Your task to perform on an android device: Add "bose soundlink" to the cart on bestbuy.com Image 0: 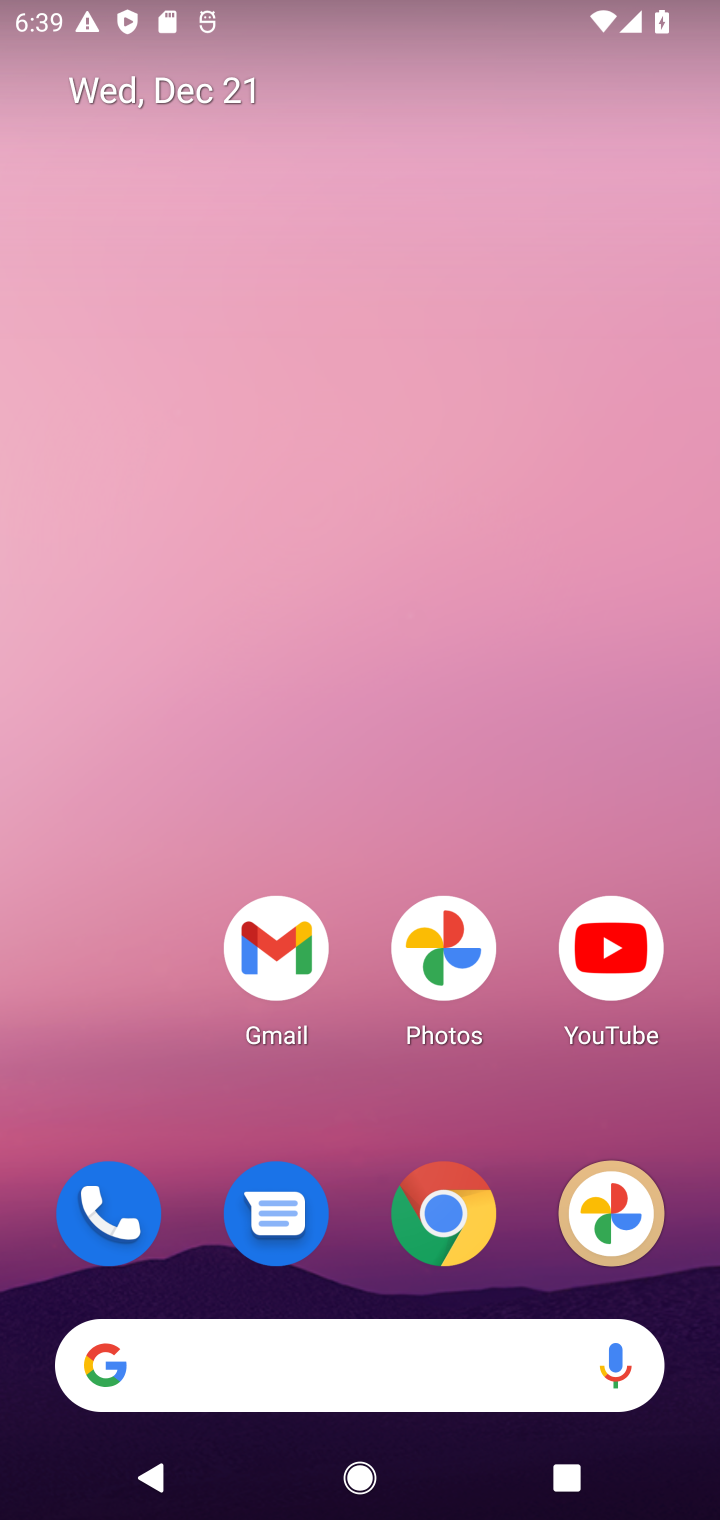
Step 0: press home button
Your task to perform on an android device: Add "bose soundlink" to the cart on bestbuy.com Image 1: 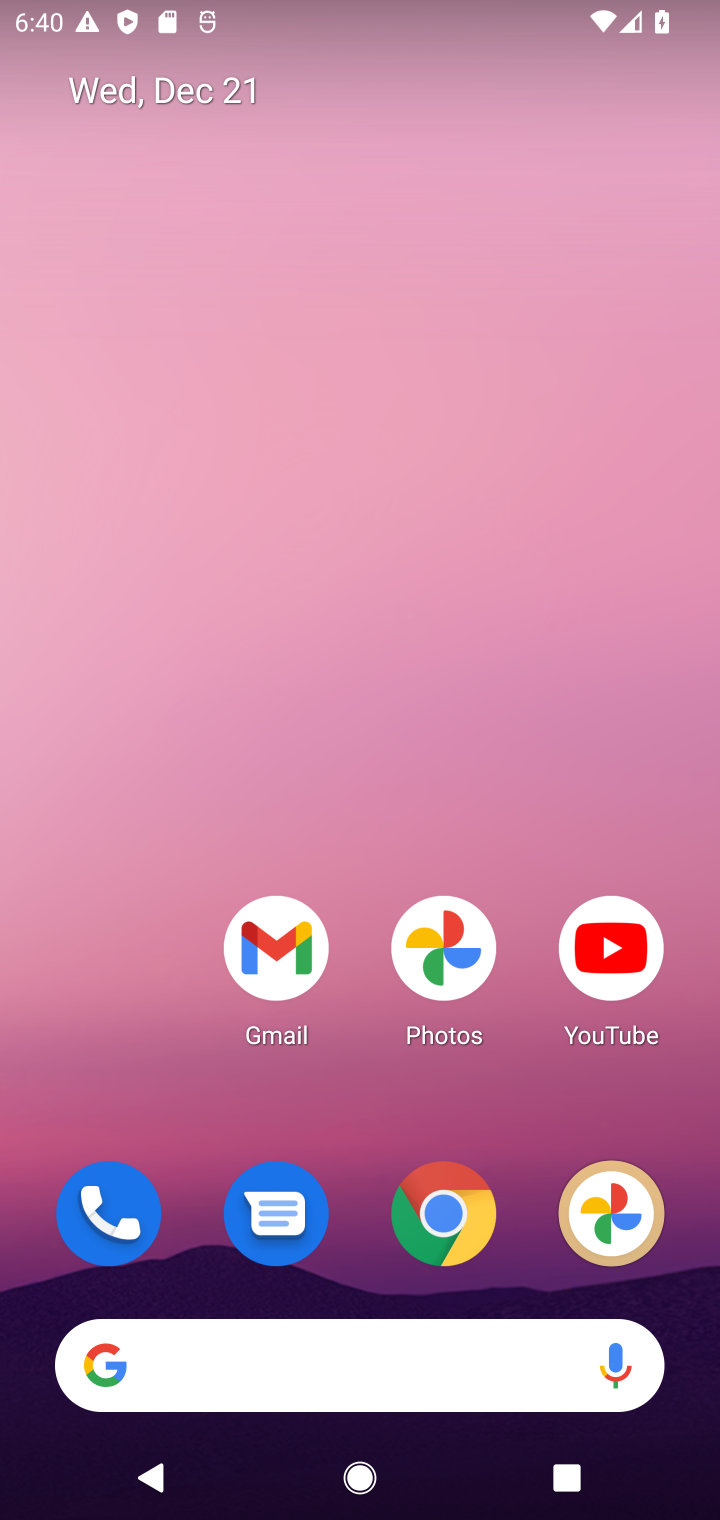
Step 1: click (631, 988)
Your task to perform on an android device: Add "bose soundlink" to the cart on bestbuy.com Image 2: 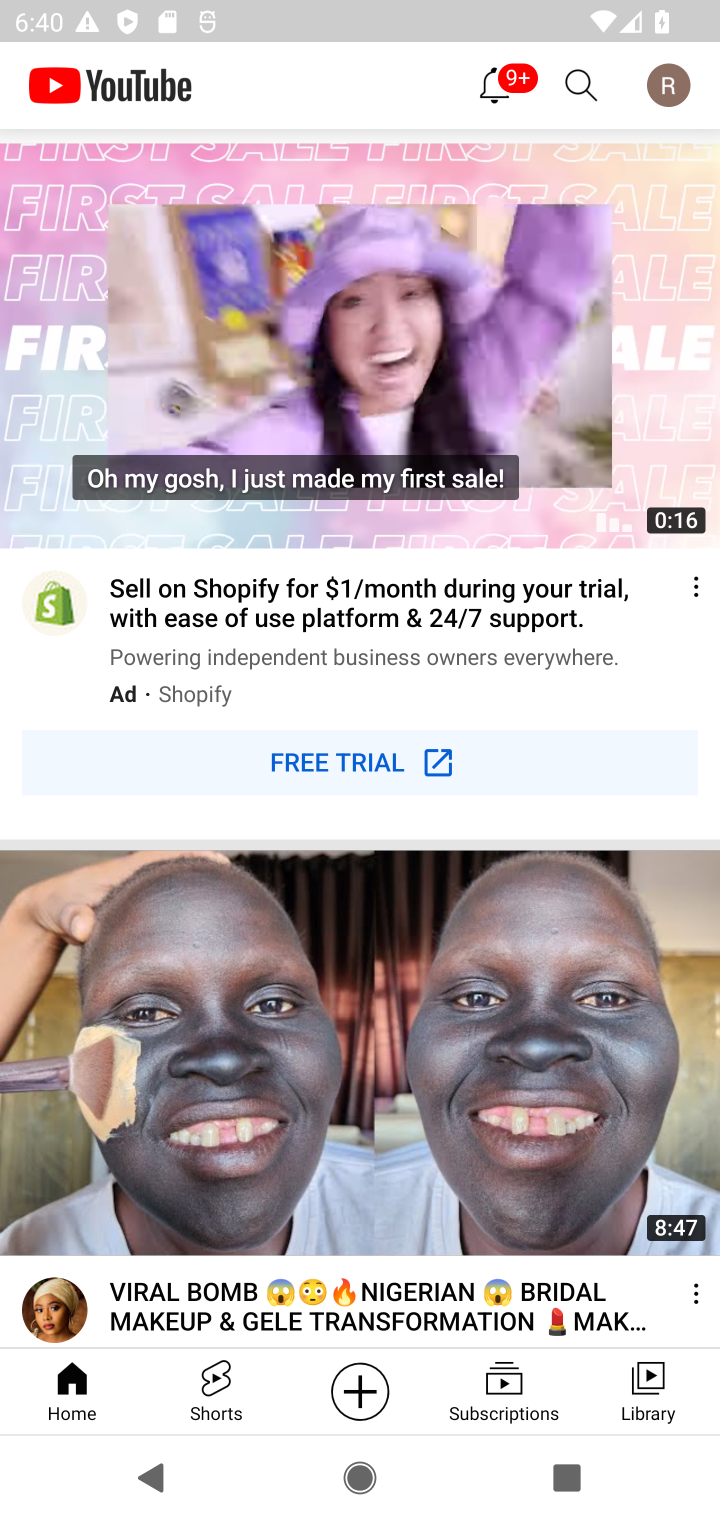
Step 2: press home button
Your task to perform on an android device: Add "bose soundlink" to the cart on bestbuy.com Image 3: 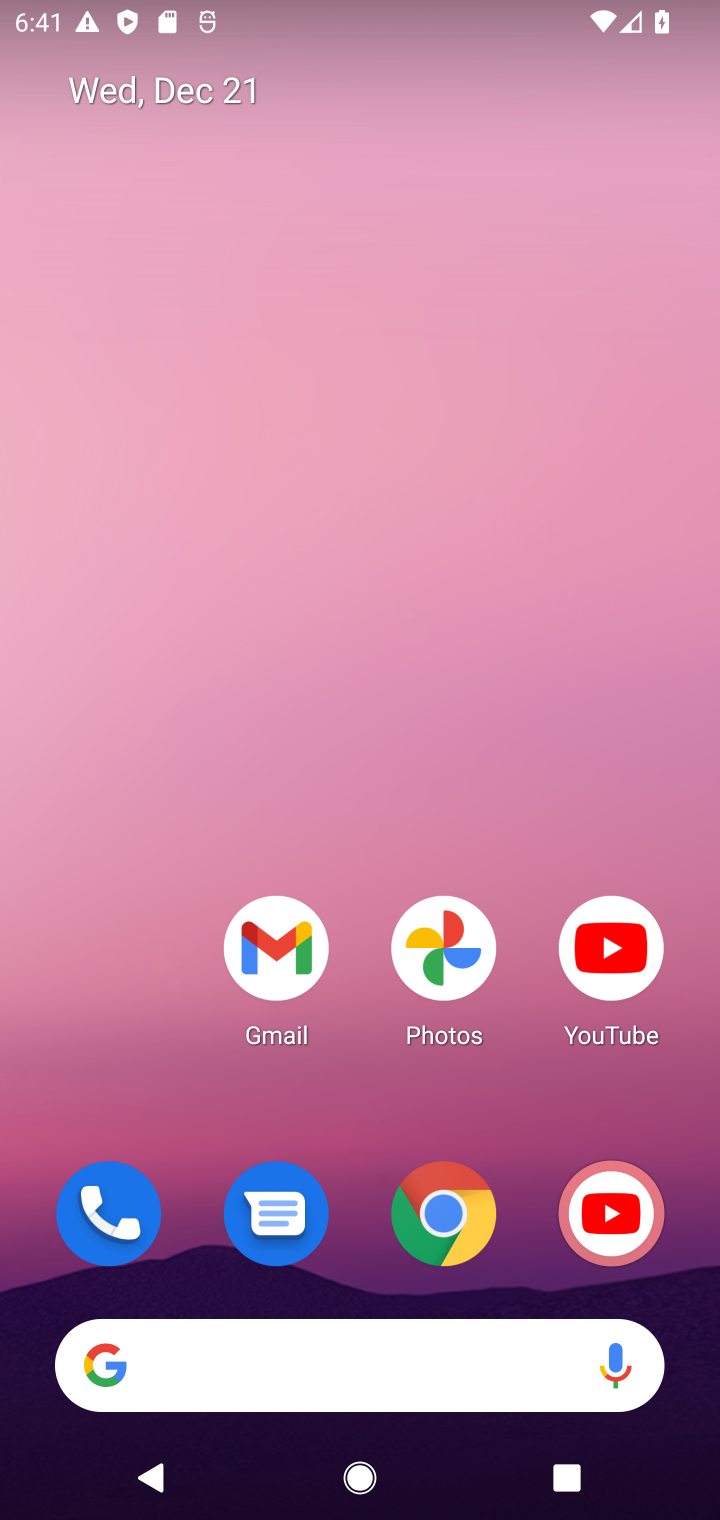
Step 3: click (430, 1217)
Your task to perform on an android device: Add "bose soundlink" to the cart on bestbuy.com Image 4: 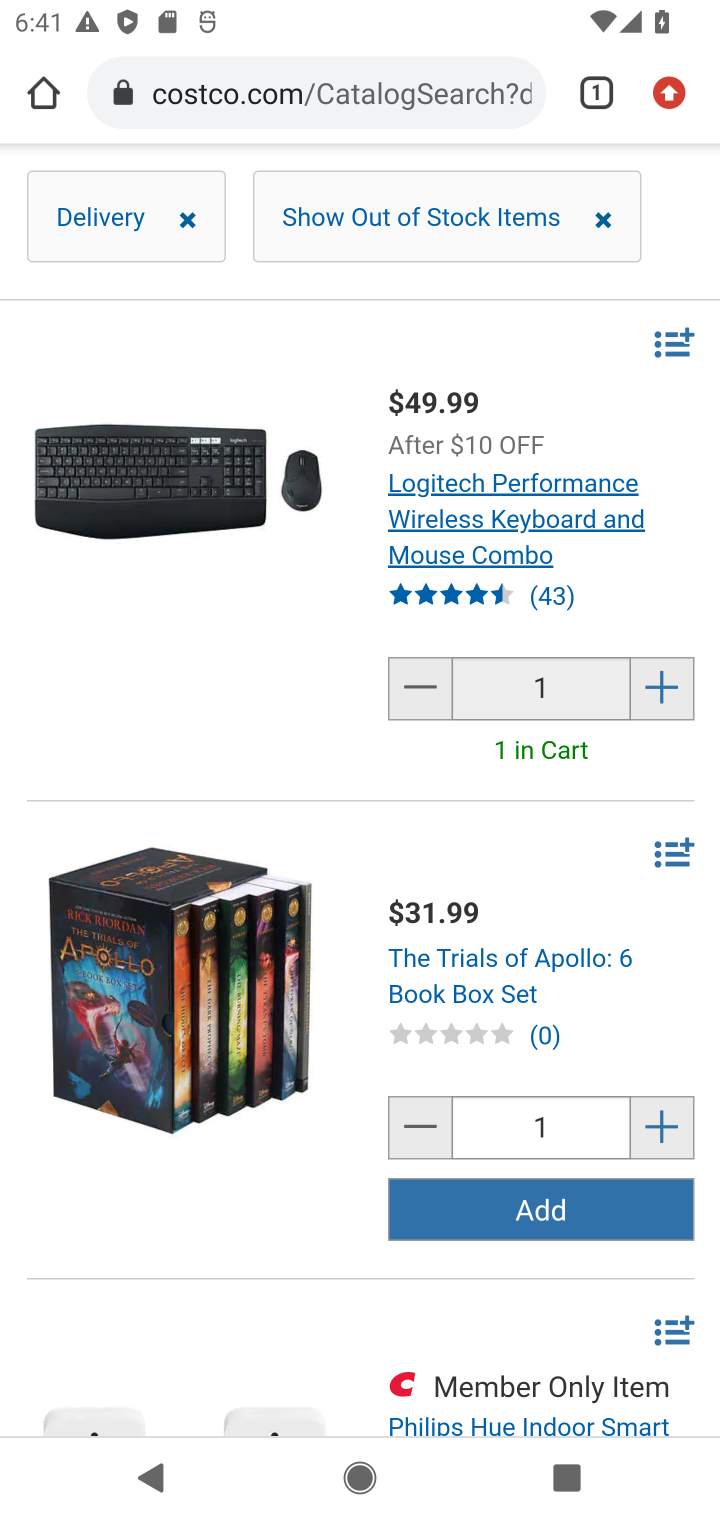
Step 4: click (311, 99)
Your task to perform on an android device: Add "bose soundlink" to the cart on bestbuy.com Image 5: 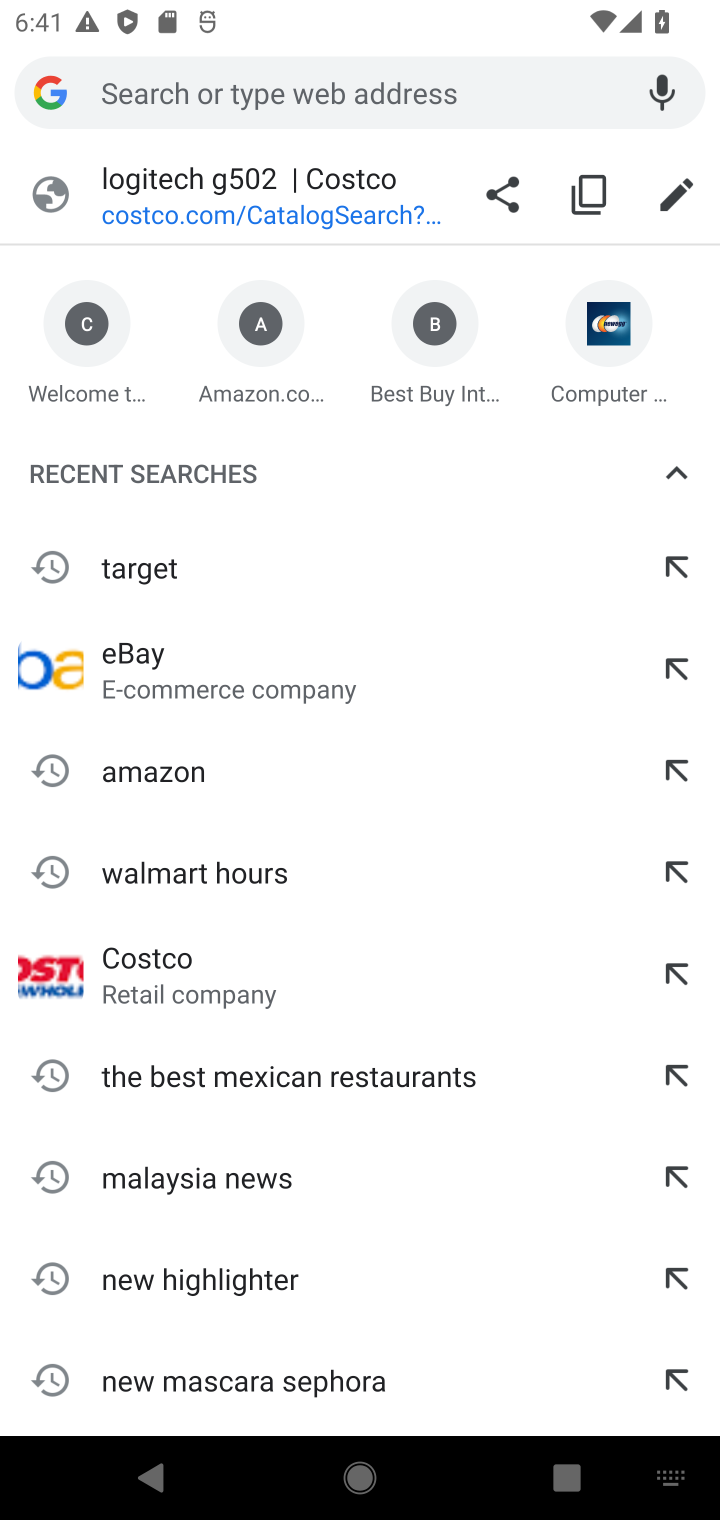
Step 5: type "bestbuy"
Your task to perform on an android device: Add "bose soundlink" to the cart on bestbuy.com Image 6: 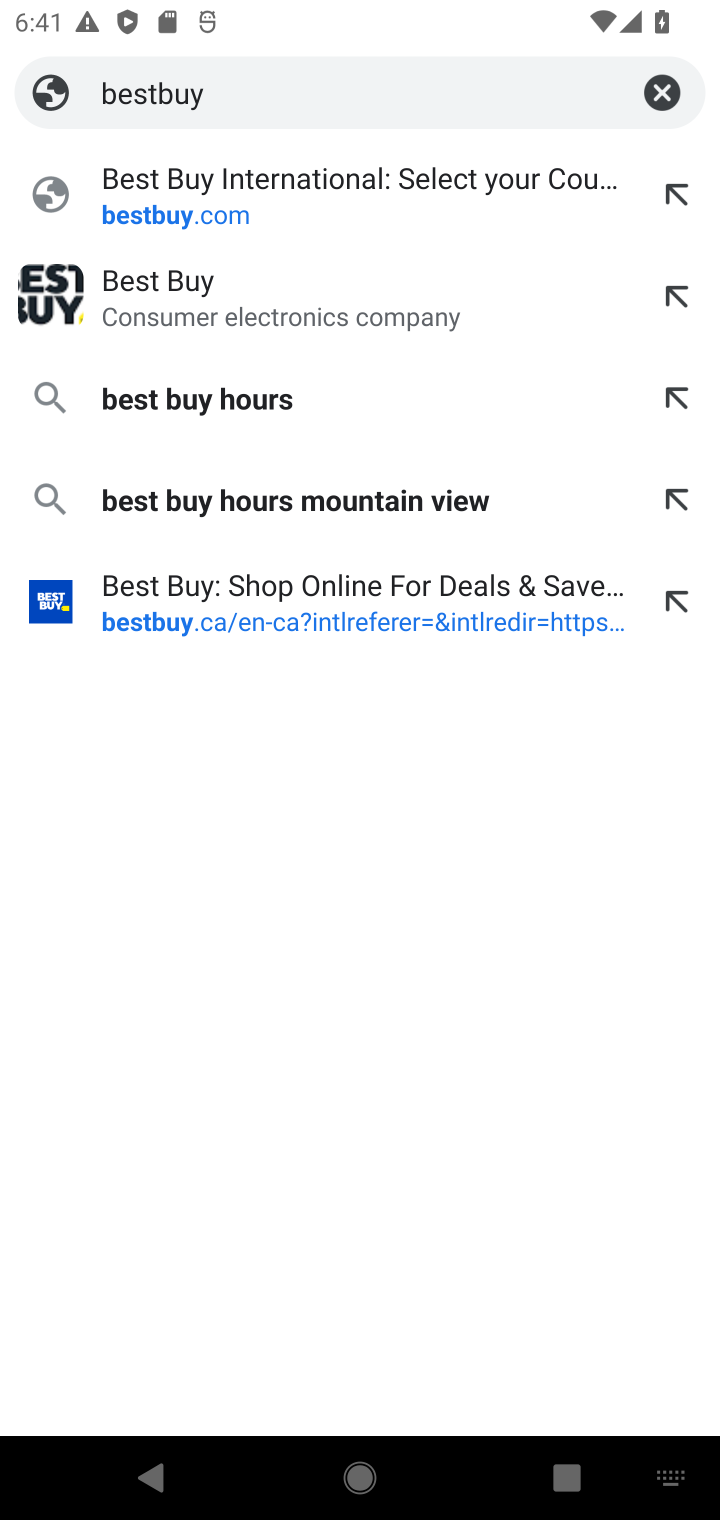
Step 6: click (303, 209)
Your task to perform on an android device: Add "bose soundlink" to the cart on bestbuy.com Image 7: 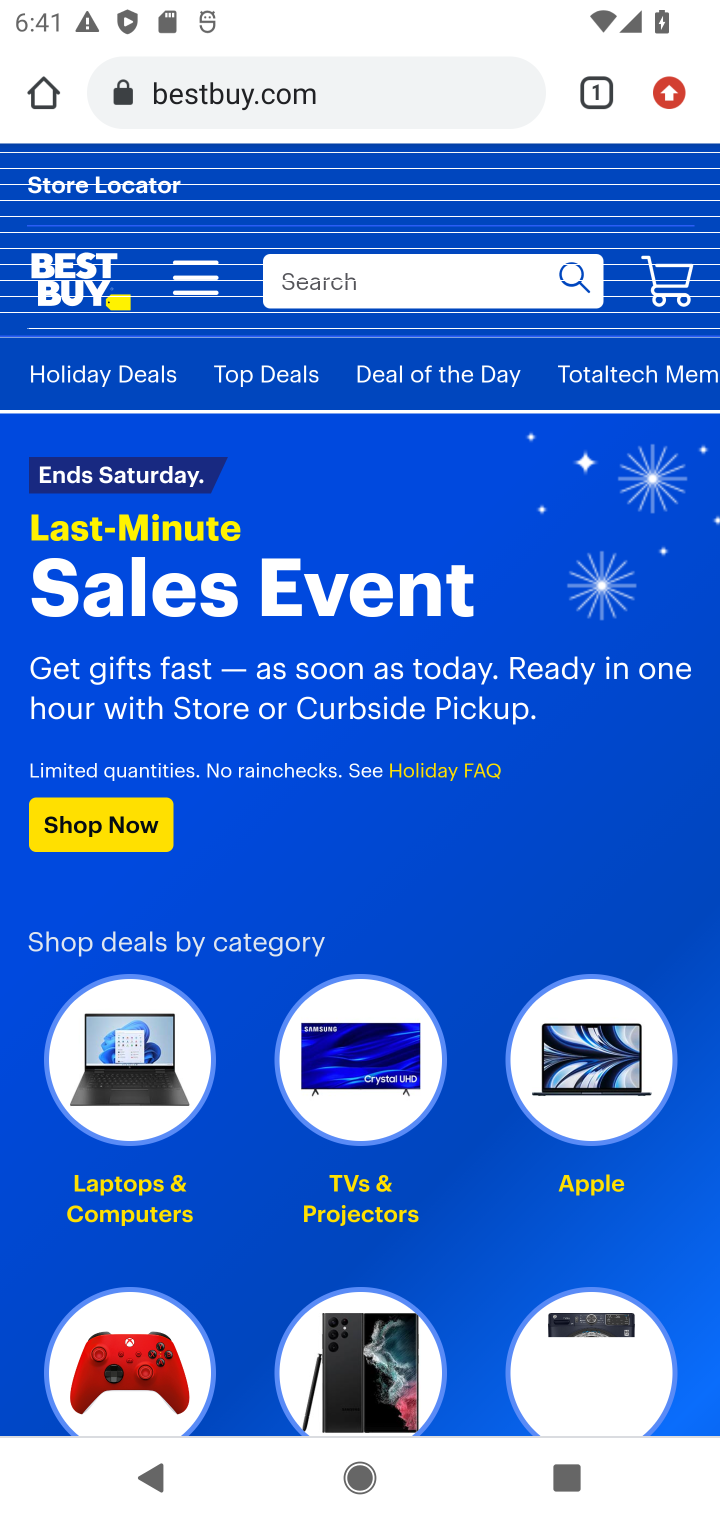
Step 7: click (335, 275)
Your task to perform on an android device: Add "bose soundlink" to the cart on bestbuy.com Image 8: 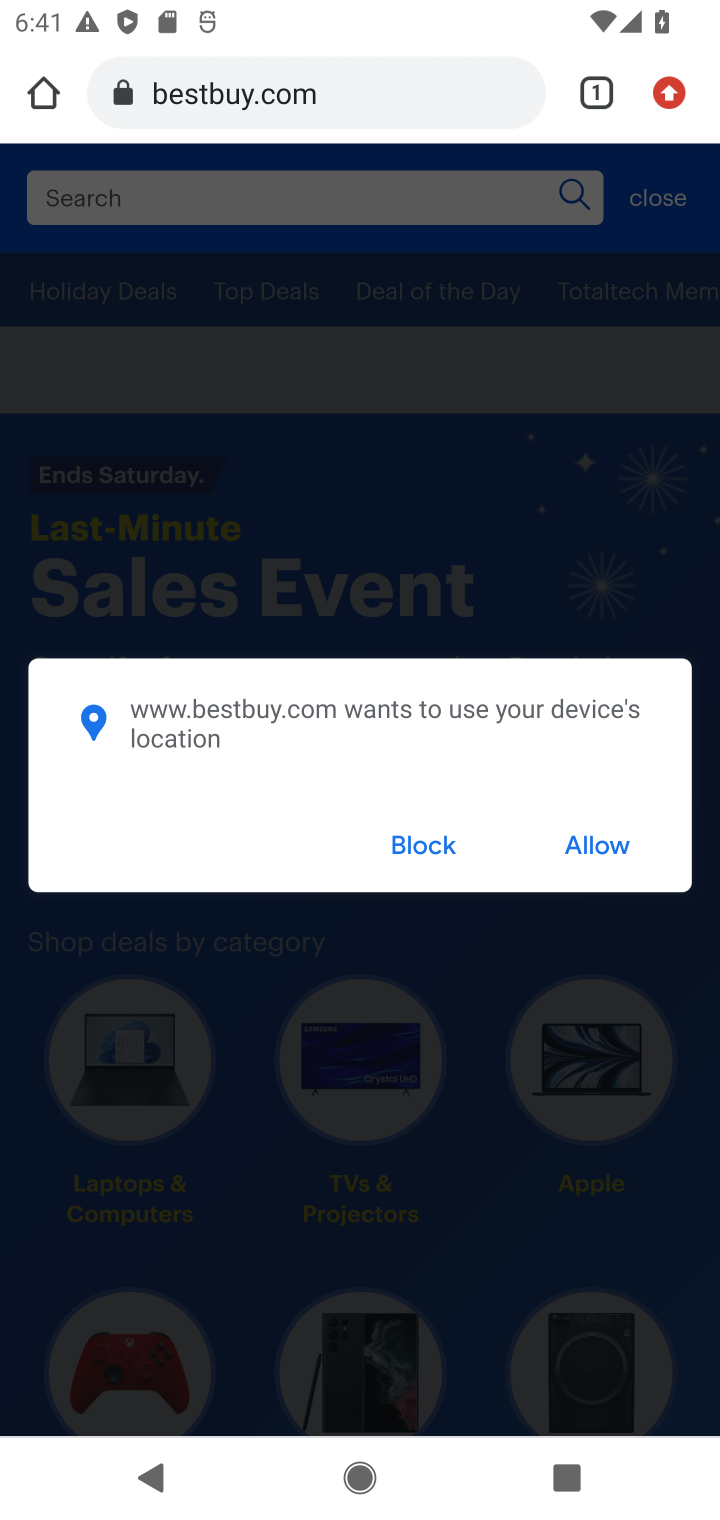
Step 8: type "bose soundlink"
Your task to perform on an android device: Add "bose soundlink" to the cart on bestbuy.com Image 9: 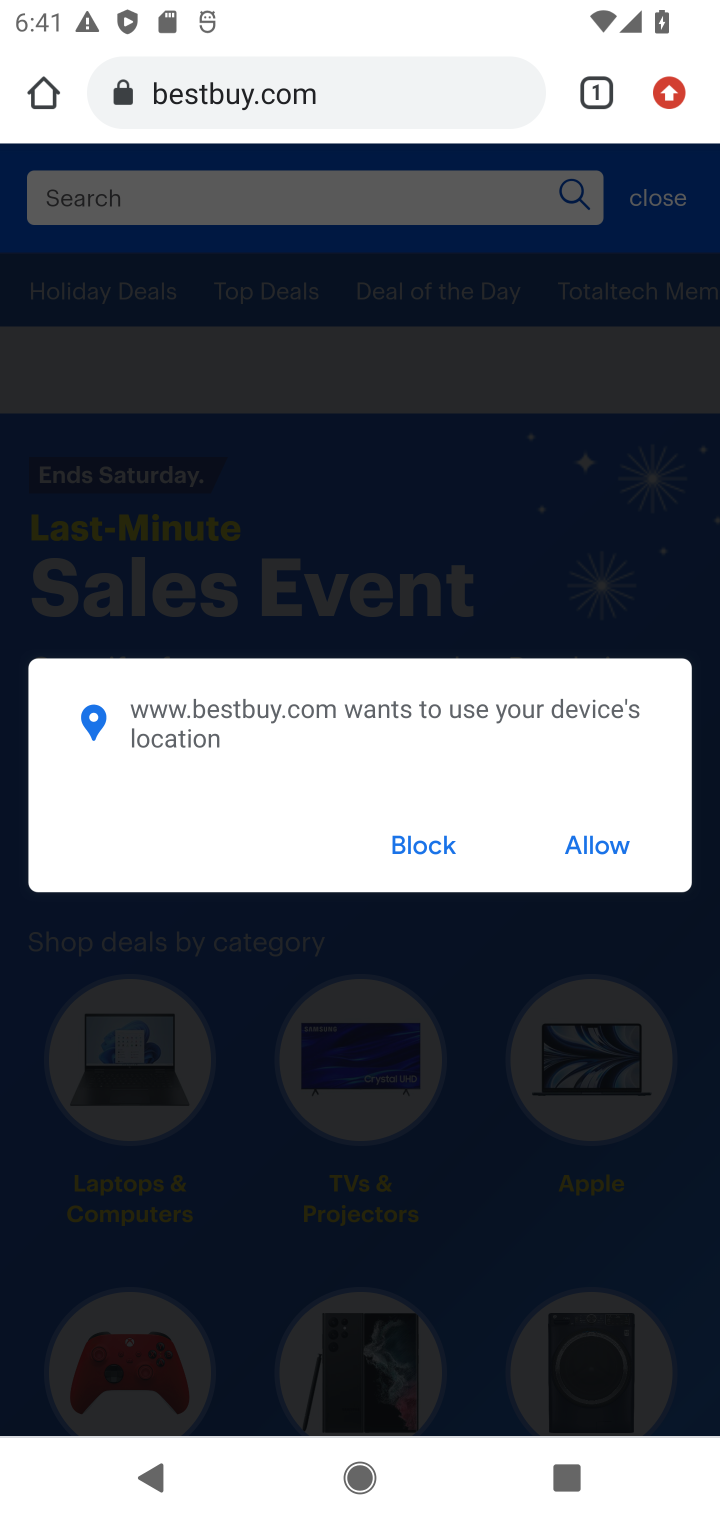
Step 9: click (618, 866)
Your task to perform on an android device: Add "bose soundlink" to the cart on bestbuy.com Image 10: 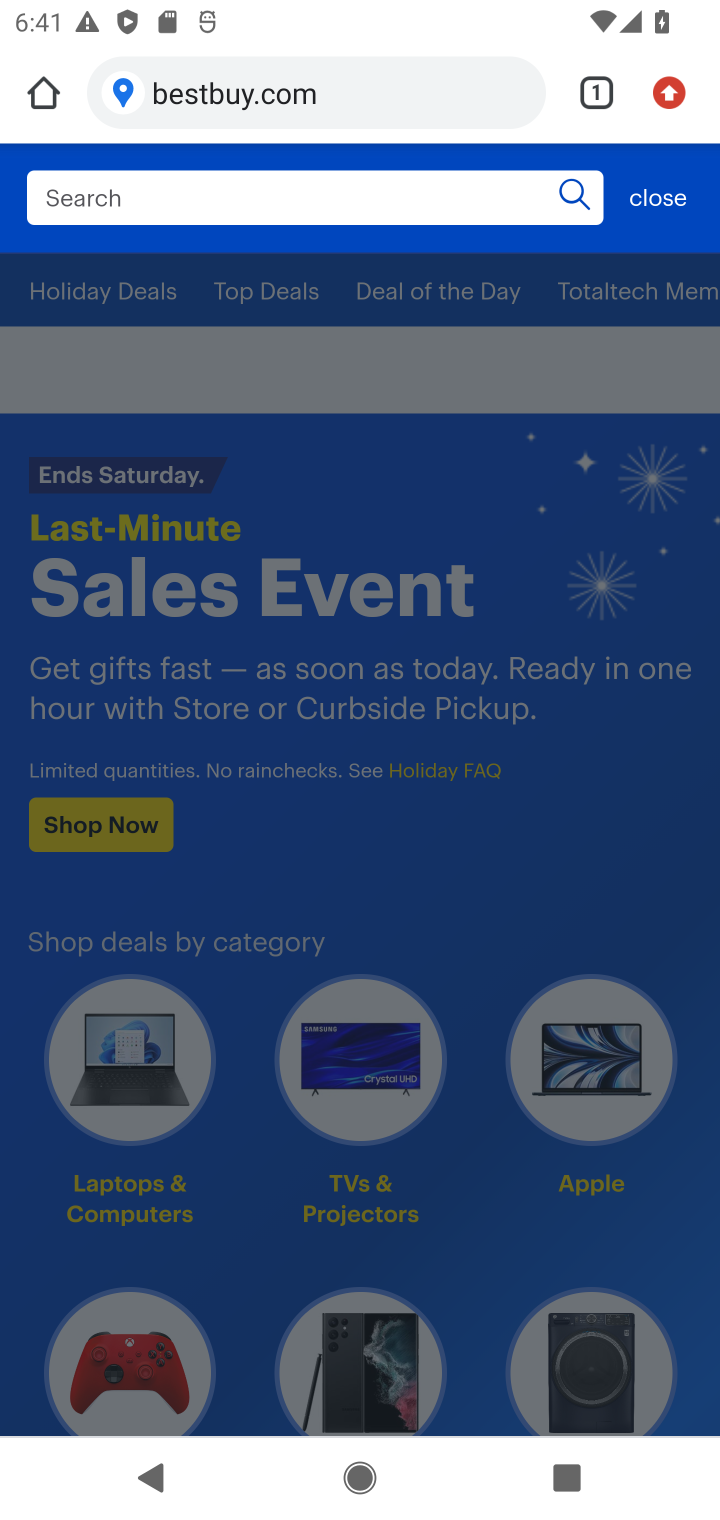
Step 10: click (287, 193)
Your task to perform on an android device: Add "bose soundlink" to the cart on bestbuy.com Image 11: 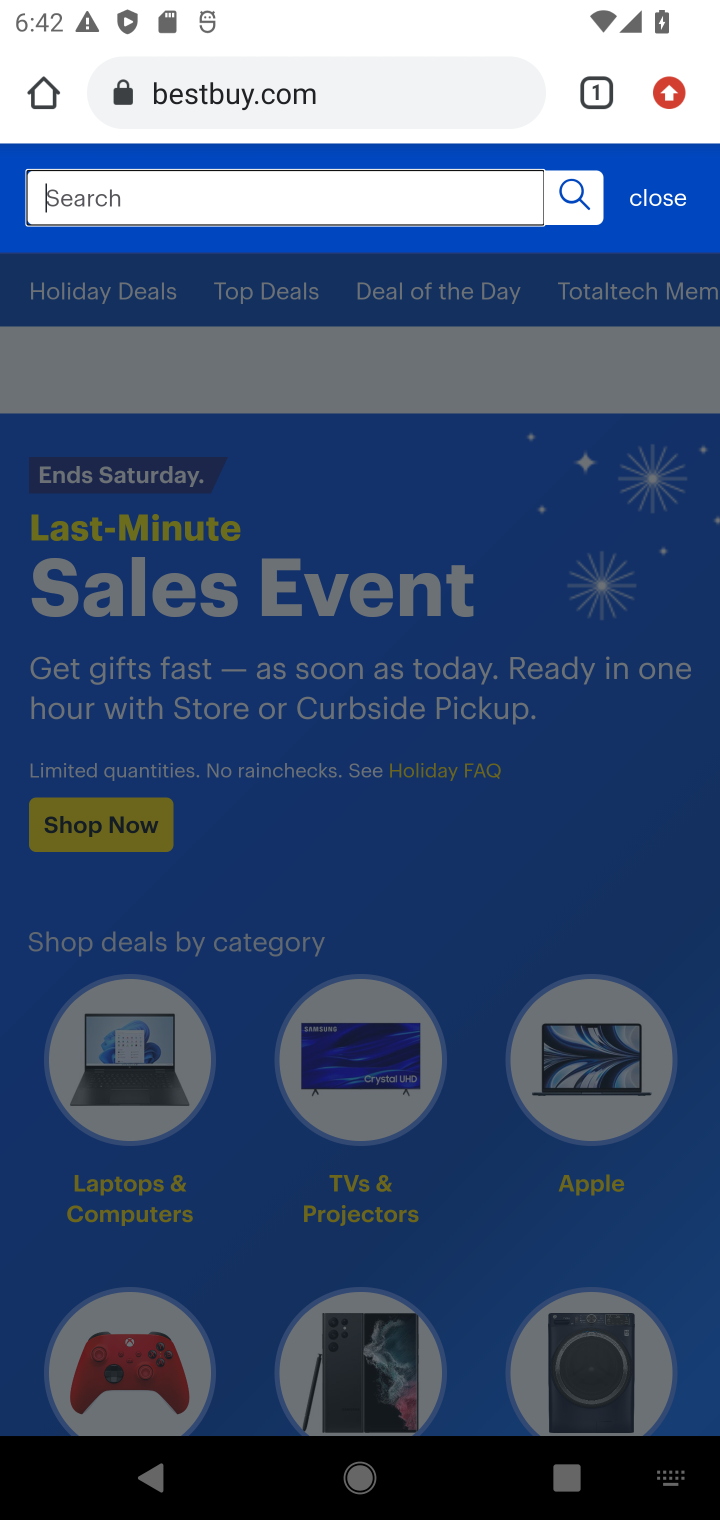
Step 11: type "bose soundlink"
Your task to perform on an android device: Add "bose soundlink" to the cart on bestbuy.com Image 12: 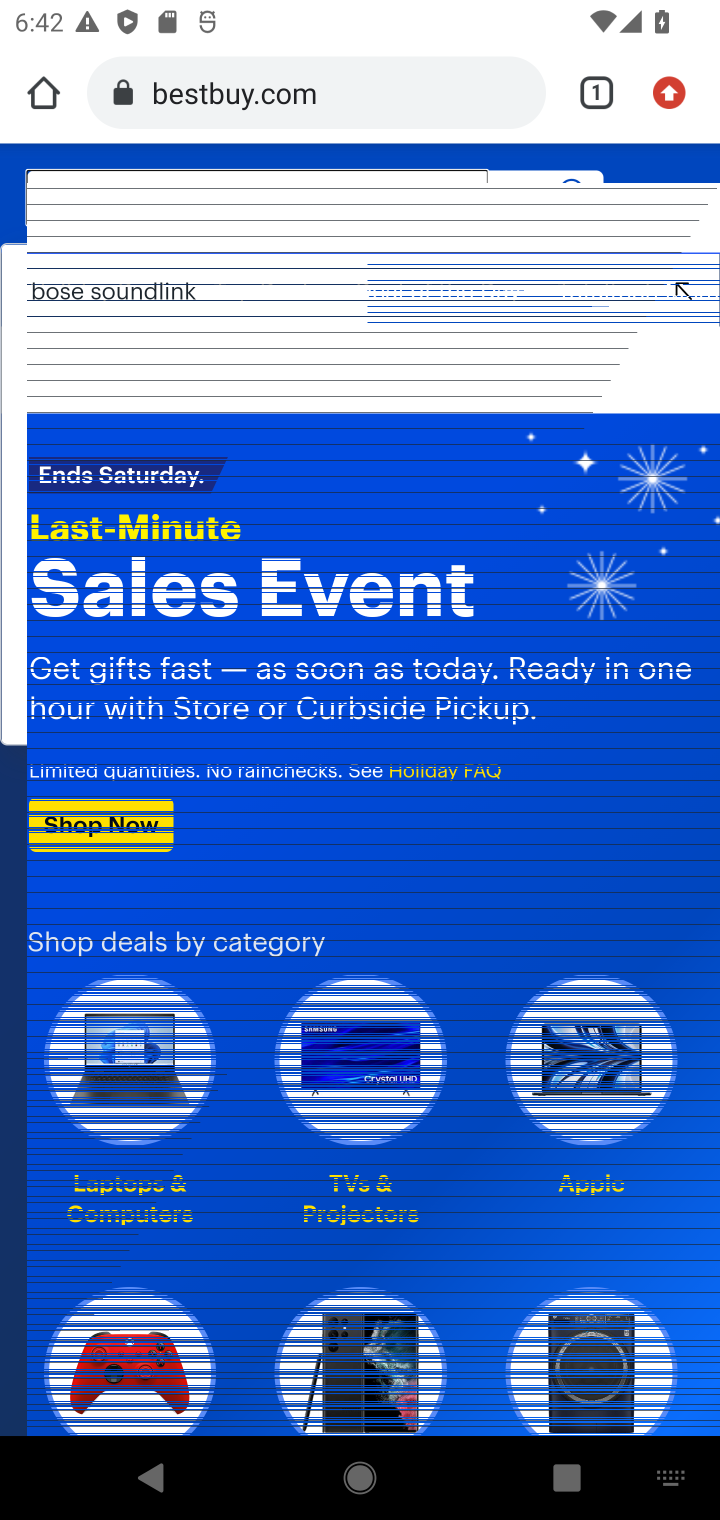
Step 12: click (569, 202)
Your task to perform on an android device: Add "bose soundlink" to the cart on bestbuy.com Image 13: 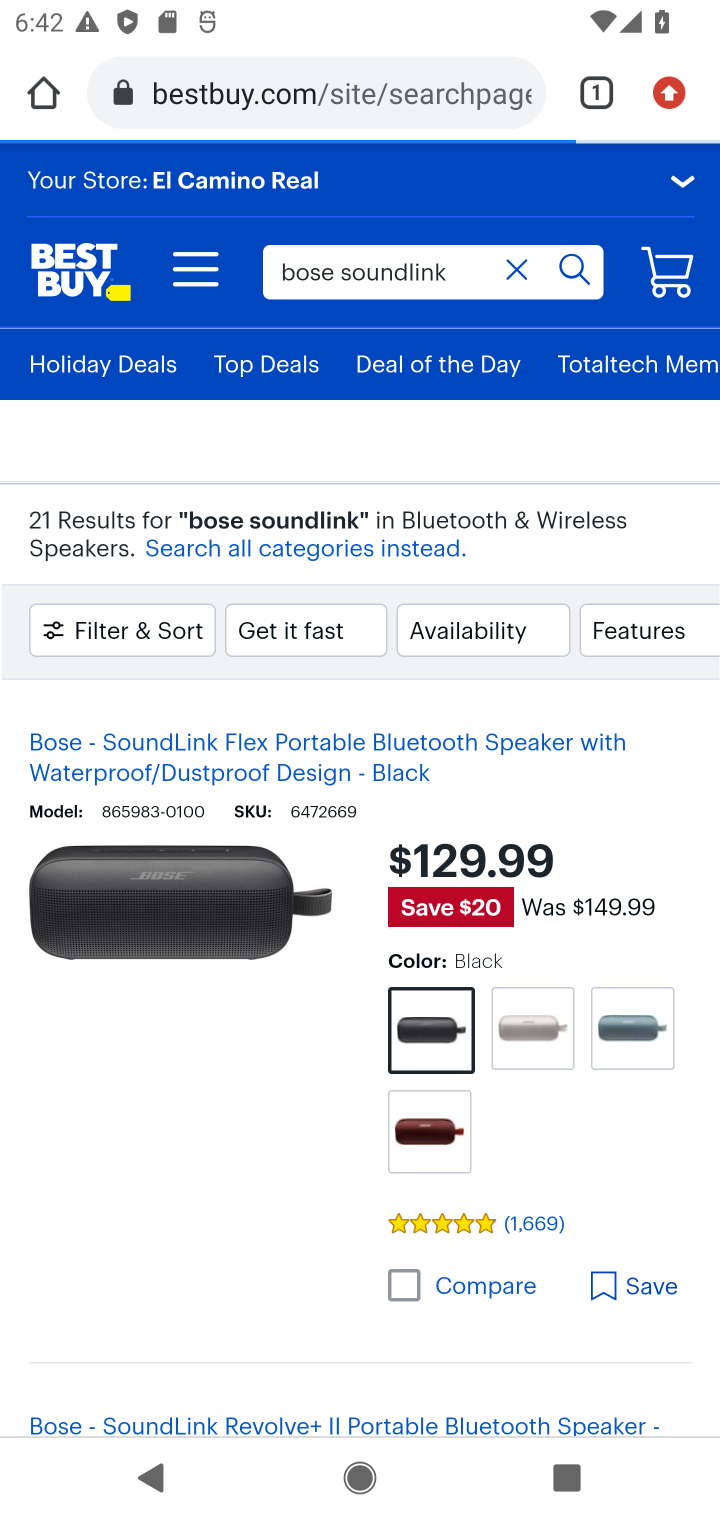
Step 13: drag from (282, 1206) to (293, 490)
Your task to perform on an android device: Add "bose soundlink" to the cart on bestbuy.com Image 14: 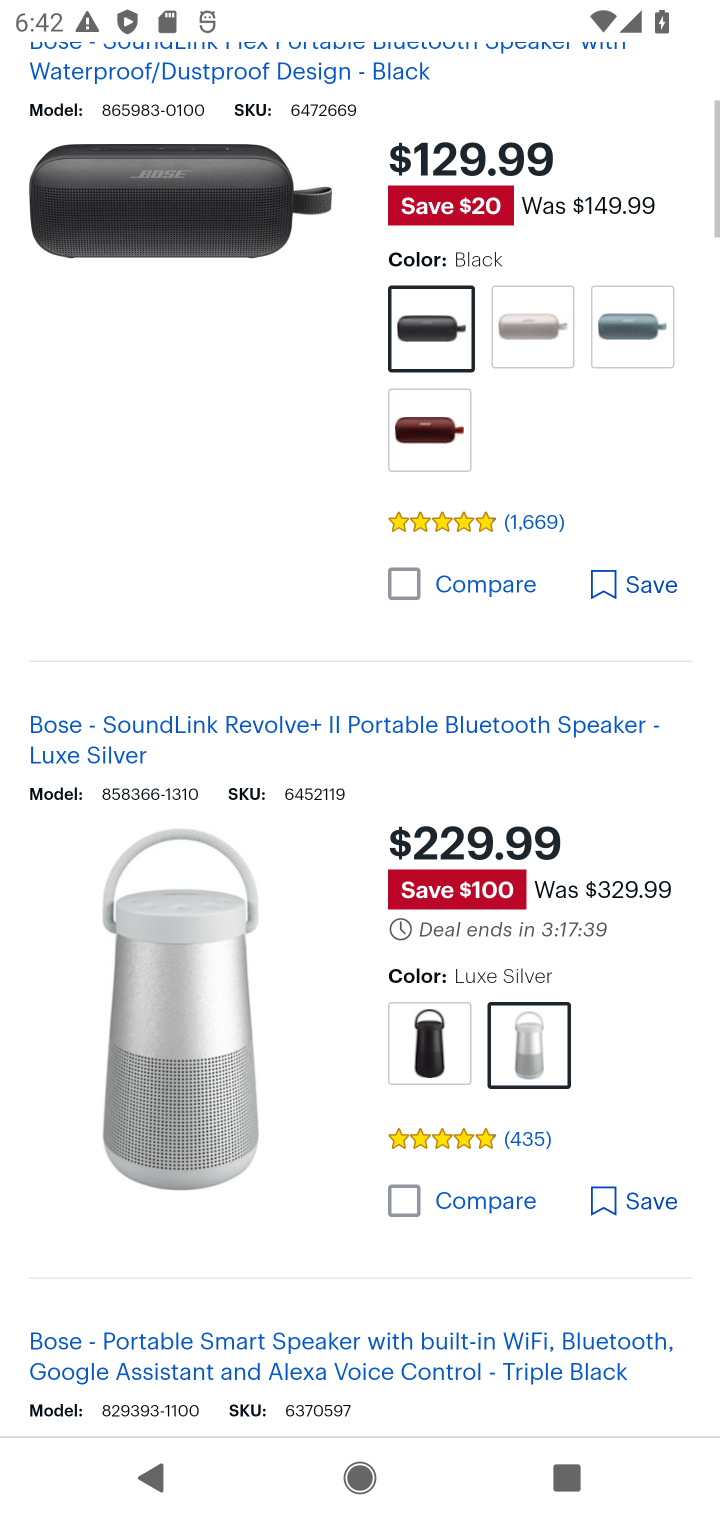
Step 14: click (293, 490)
Your task to perform on an android device: Add "bose soundlink" to the cart on bestbuy.com Image 15: 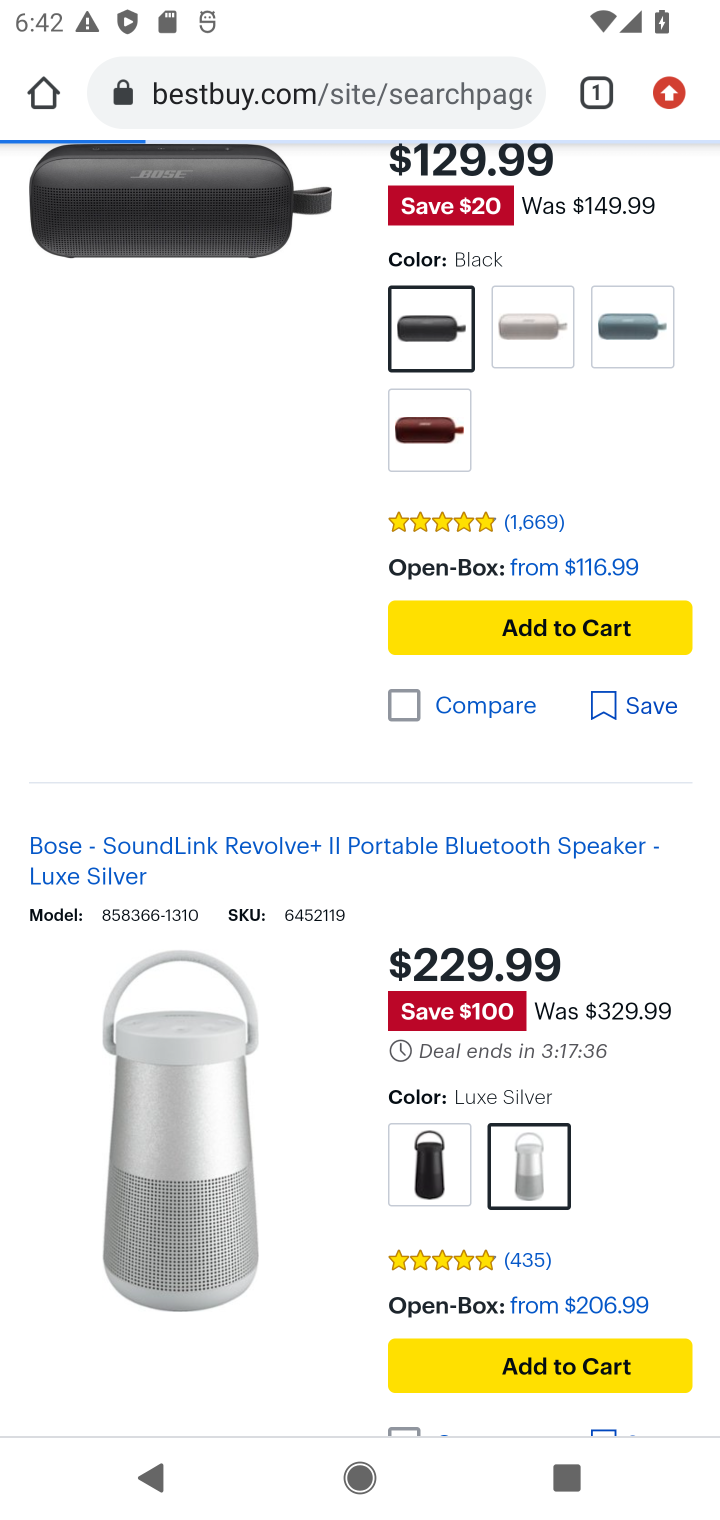
Step 15: click (463, 668)
Your task to perform on an android device: Add "bose soundlink" to the cart on bestbuy.com Image 16: 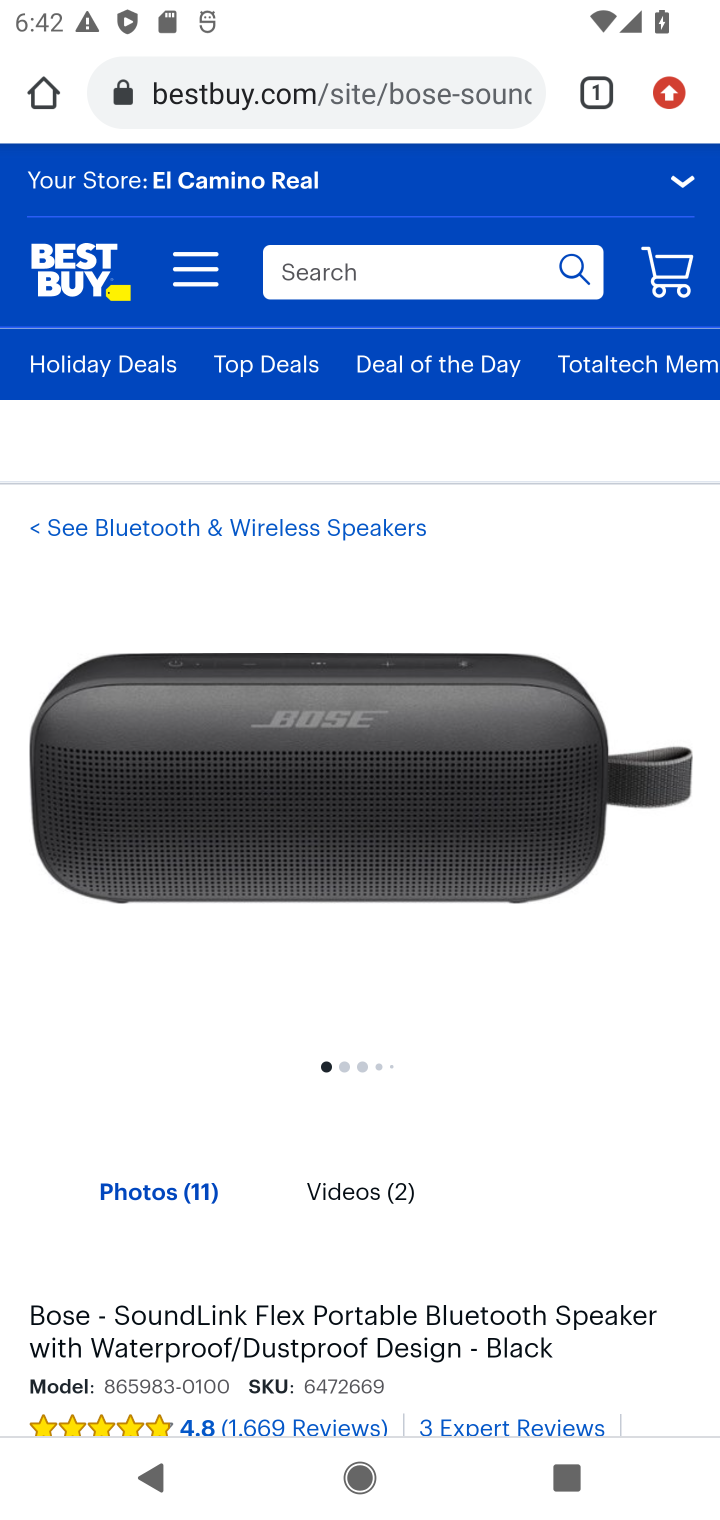
Step 16: drag from (412, 1104) to (412, 663)
Your task to perform on an android device: Add "bose soundlink" to the cart on bestbuy.com Image 17: 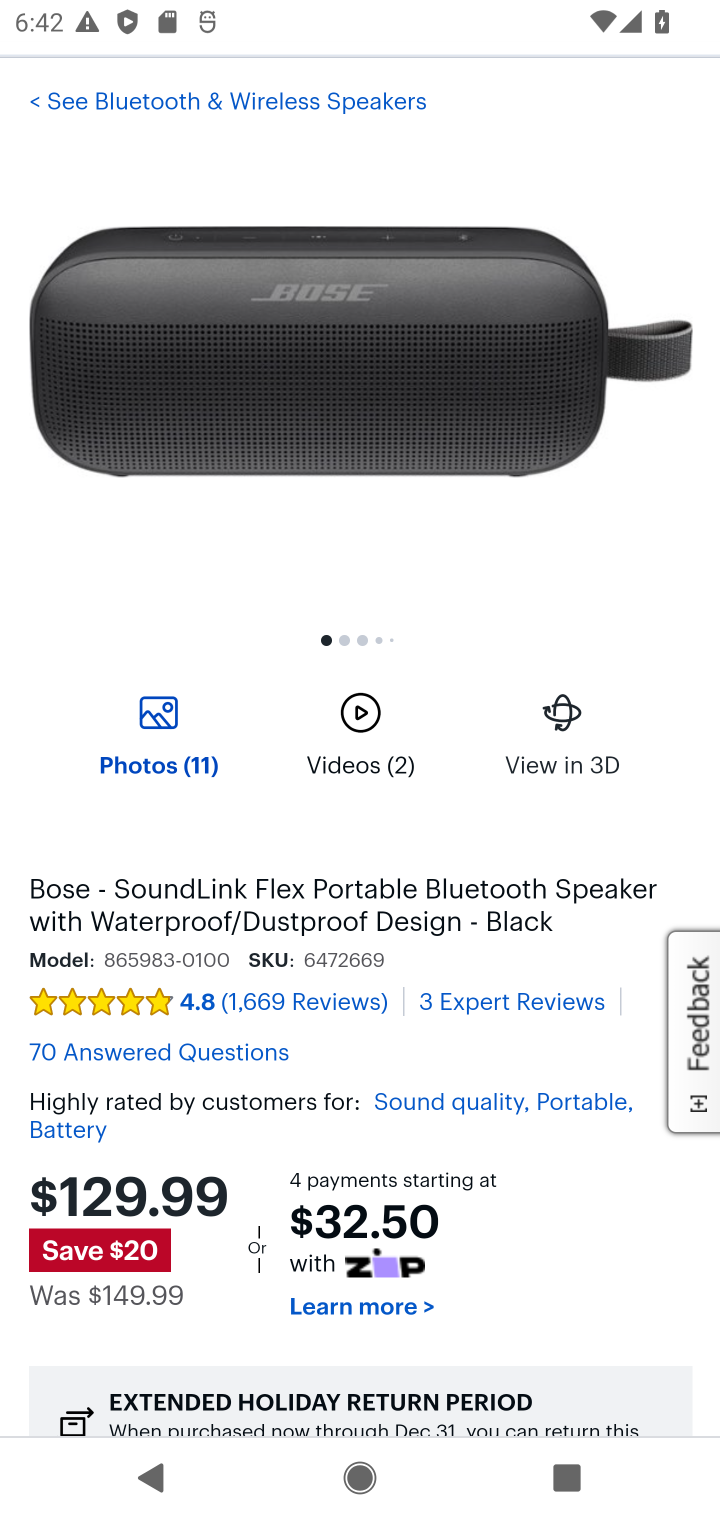
Step 17: drag from (509, 1221) to (483, 578)
Your task to perform on an android device: Add "bose soundlink" to the cart on bestbuy.com Image 18: 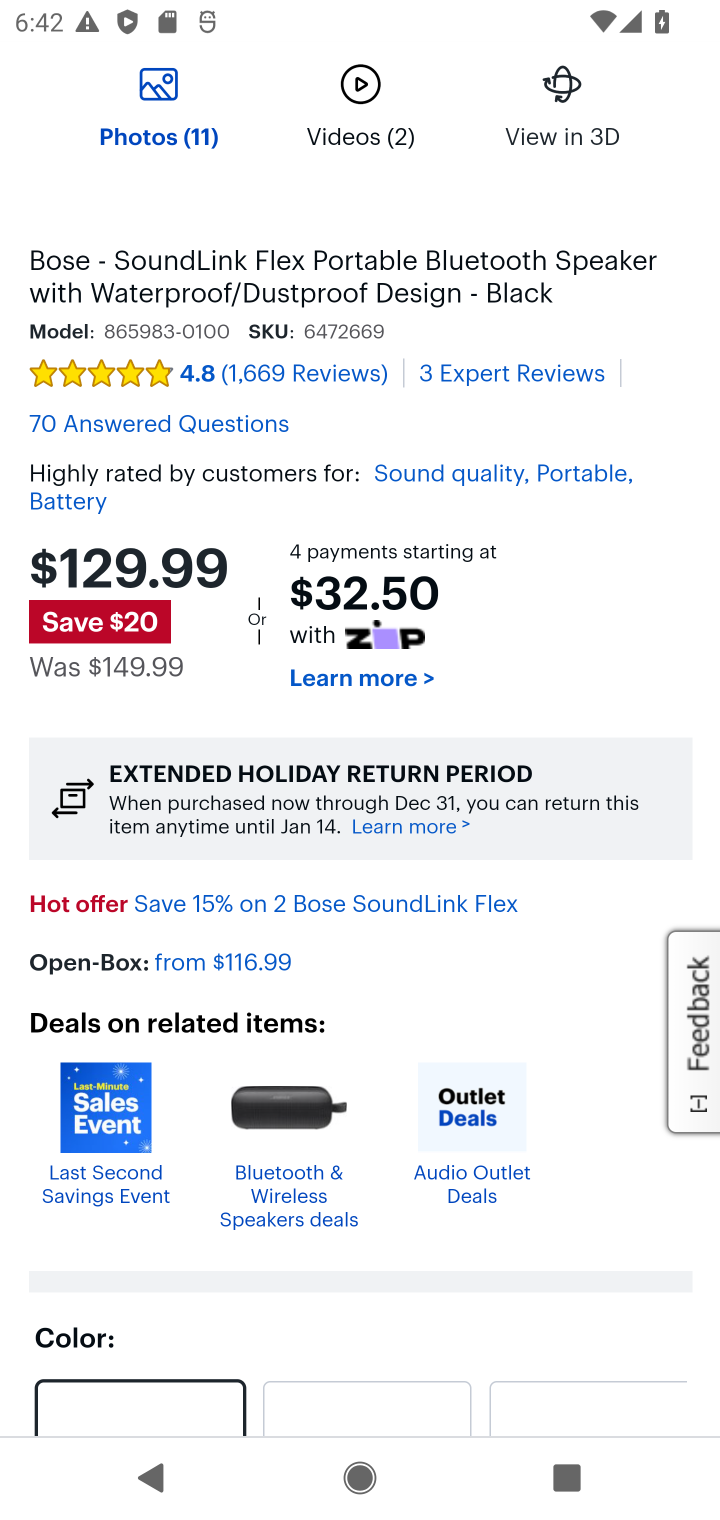
Step 18: drag from (408, 1233) to (336, 279)
Your task to perform on an android device: Add "bose soundlink" to the cart on bestbuy.com Image 19: 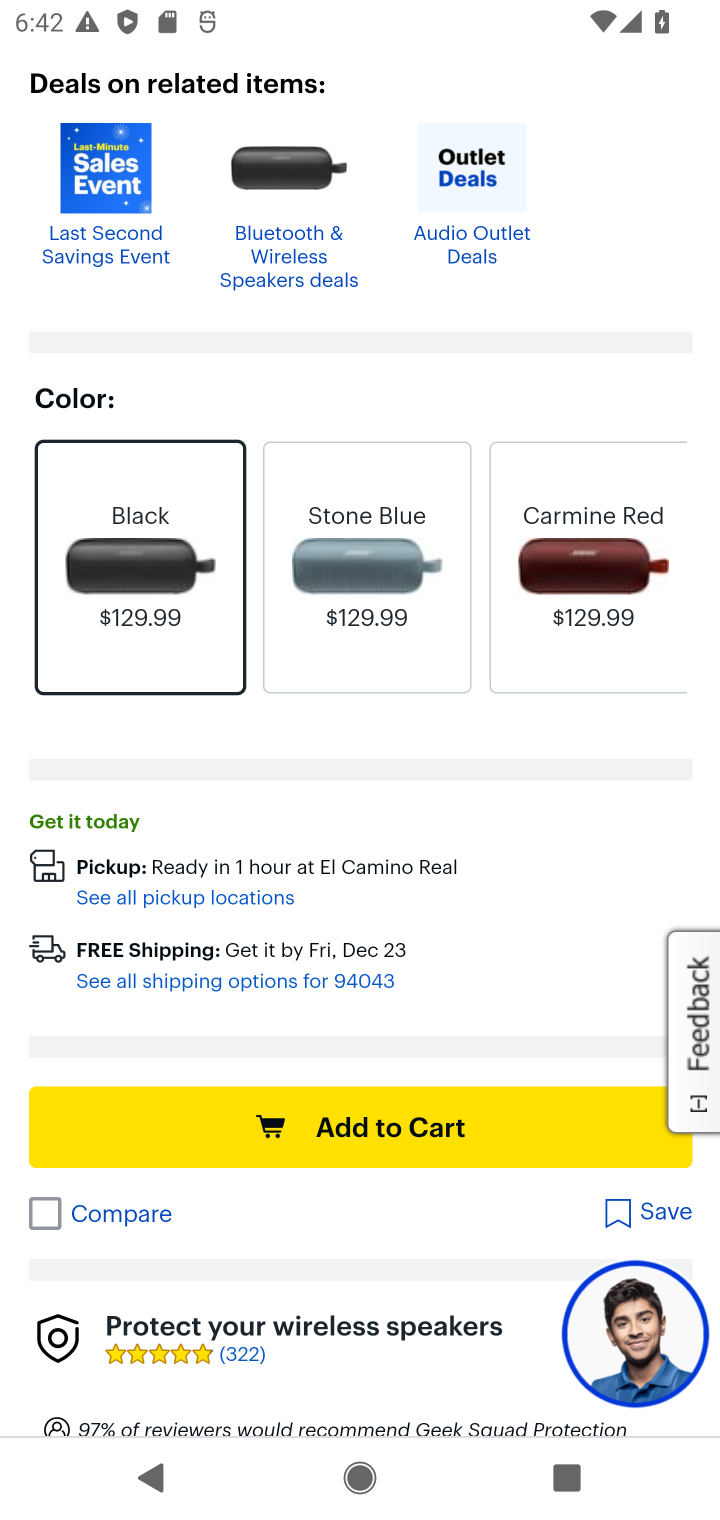
Step 19: click (425, 1139)
Your task to perform on an android device: Add "bose soundlink" to the cart on bestbuy.com Image 20: 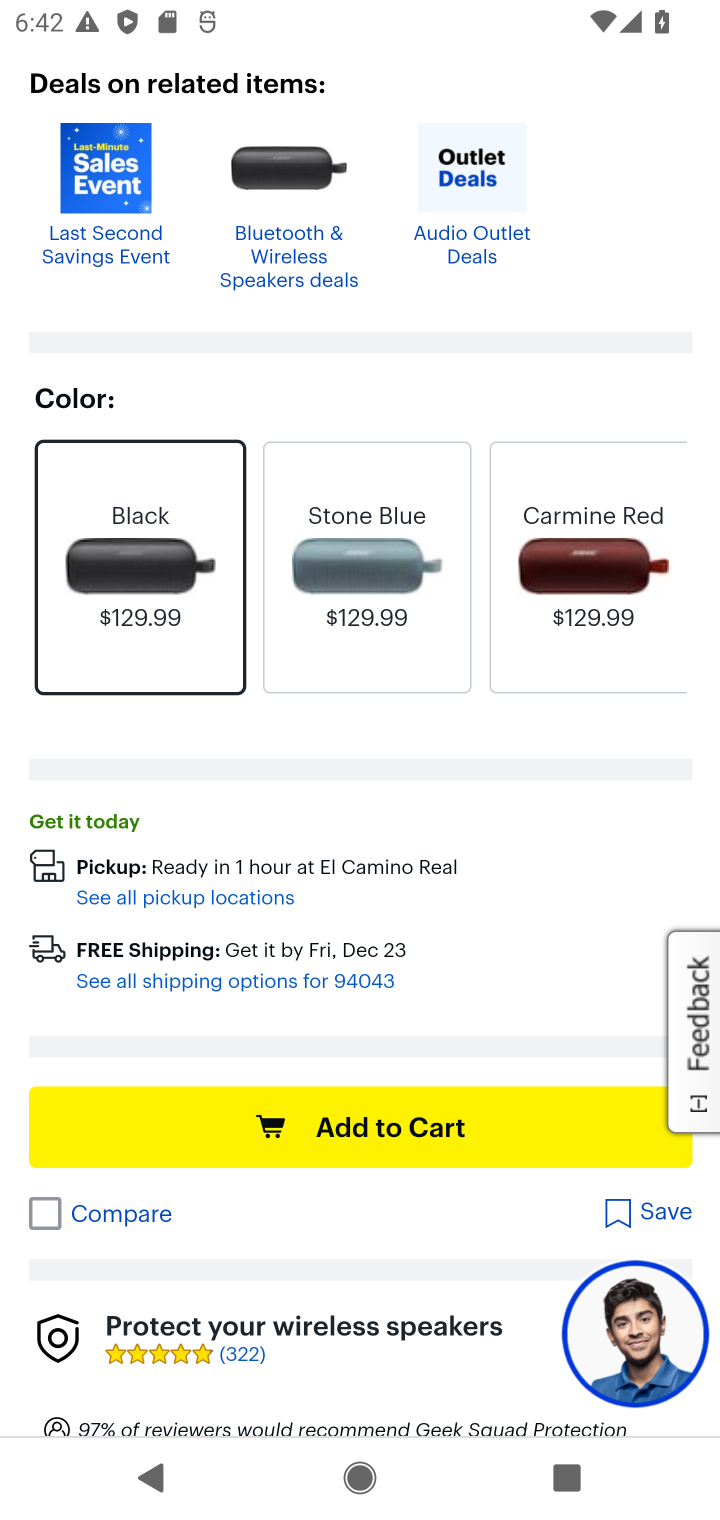
Step 20: task complete